Your task to perform on an android device: turn notification dots on Image 0: 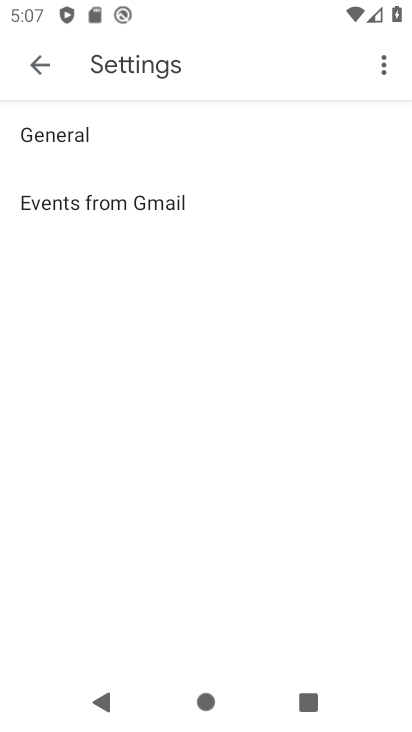
Step 0: press back button
Your task to perform on an android device: turn notification dots on Image 1: 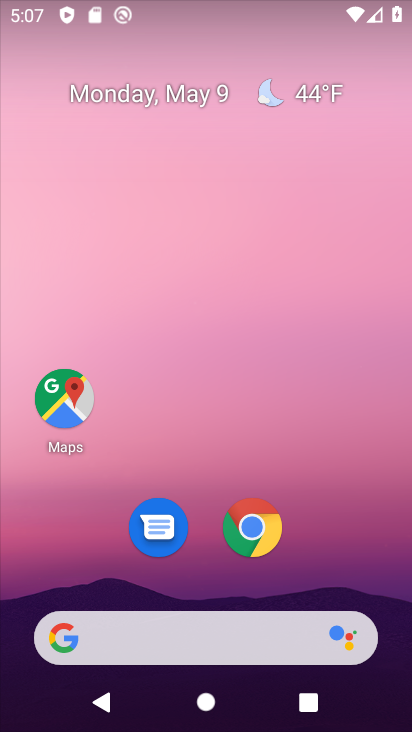
Step 1: drag from (358, 543) to (284, 46)
Your task to perform on an android device: turn notification dots on Image 2: 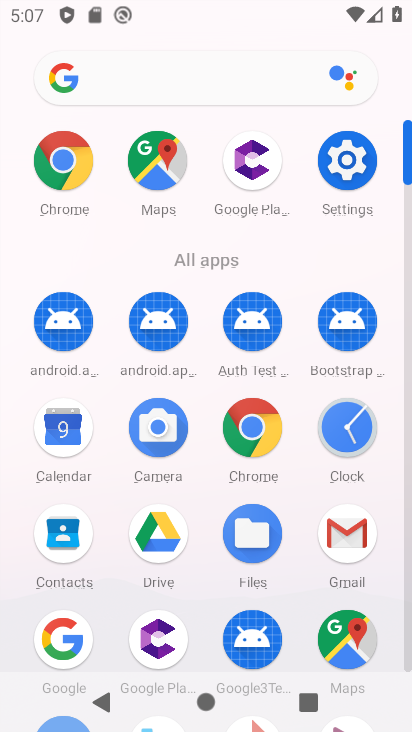
Step 2: click (346, 155)
Your task to perform on an android device: turn notification dots on Image 3: 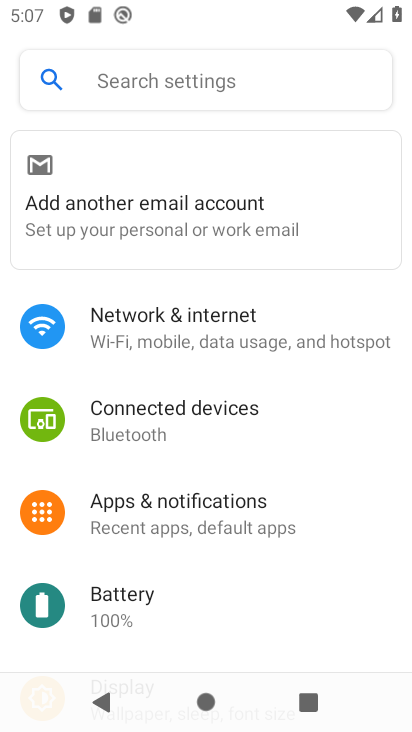
Step 3: drag from (306, 540) to (286, 150)
Your task to perform on an android device: turn notification dots on Image 4: 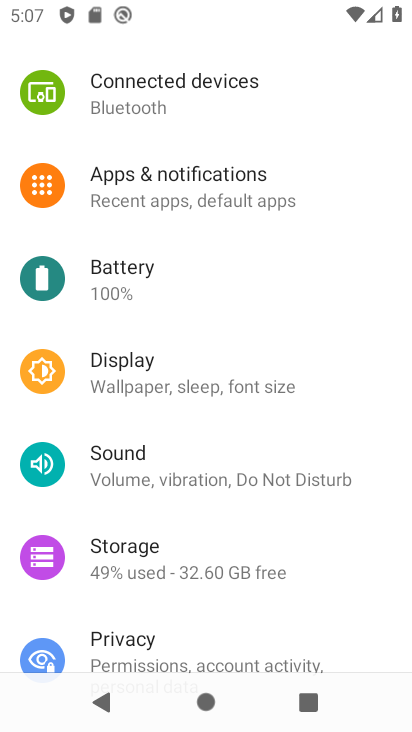
Step 4: drag from (201, 546) to (201, 195)
Your task to perform on an android device: turn notification dots on Image 5: 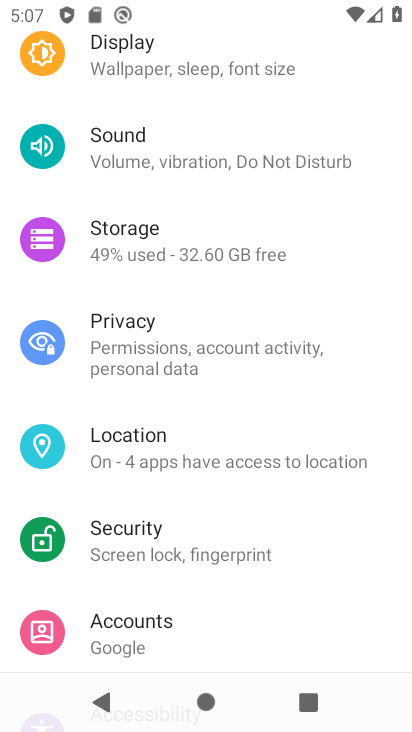
Step 5: drag from (260, 515) to (279, 160)
Your task to perform on an android device: turn notification dots on Image 6: 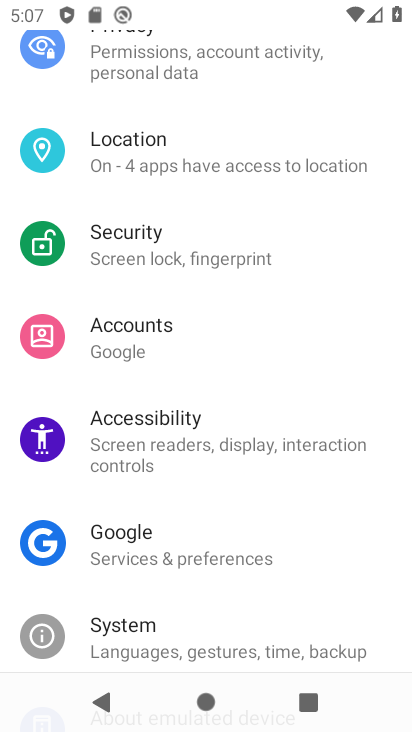
Step 6: drag from (293, 494) to (293, 153)
Your task to perform on an android device: turn notification dots on Image 7: 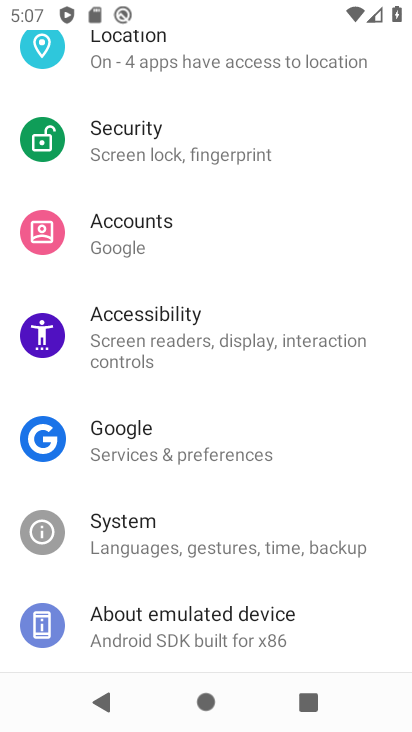
Step 7: drag from (238, 126) to (215, 491)
Your task to perform on an android device: turn notification dots on Image 8: 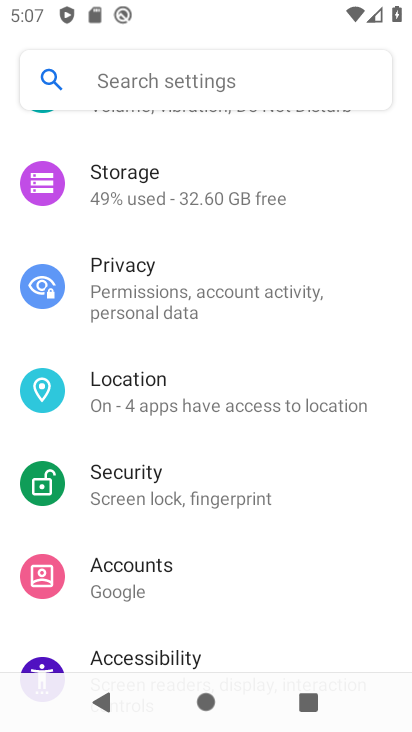
Step 8: drag from (235, 177) to (236, 503)
Your task to perform on an android device: turn notification dots on Image 9: 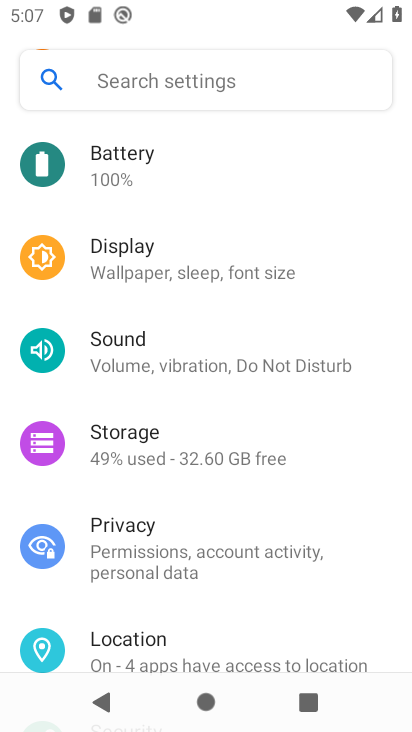
Step 9: drag from (254, 211) to (254, 486)
Your task to perform on an android device: turn notification dots on Image 10: 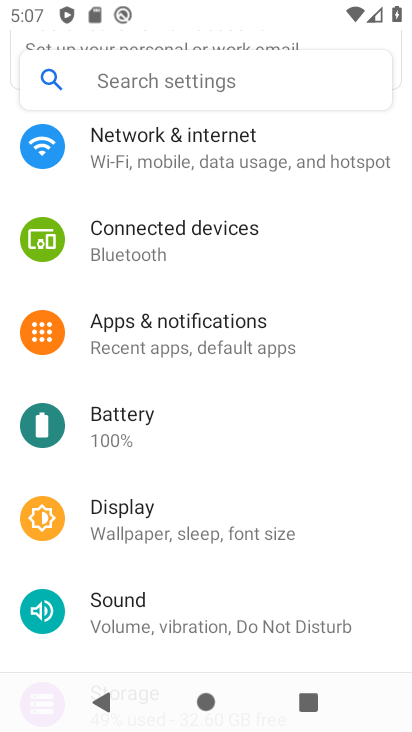
Step 10: click (178, 322)
Your task to perform on an android device: turn notification dots on Image 11: 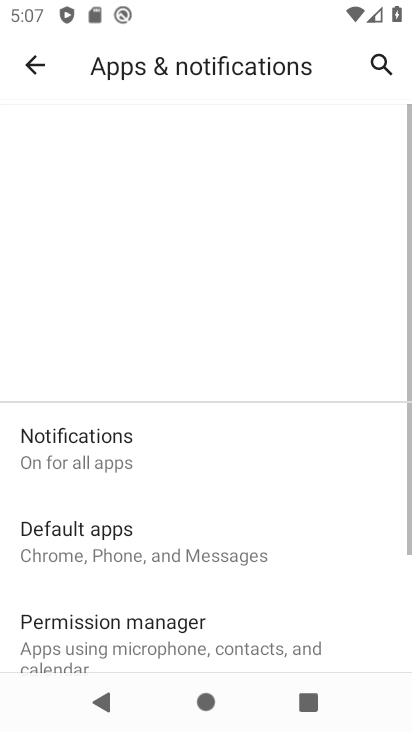
Step 11: drag from (234, 550) to (265, 170)
Your task to perform on an android device: turn notification dots on Image 12: 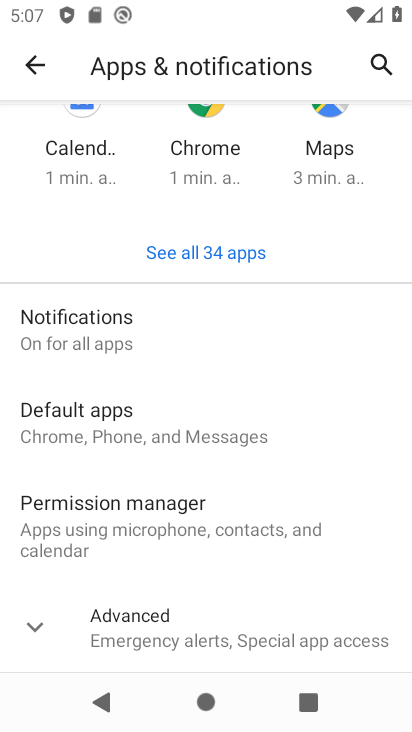
Step 12: click (143, 590)
Your task to perform on an android device: turn notification dots on Image 13: 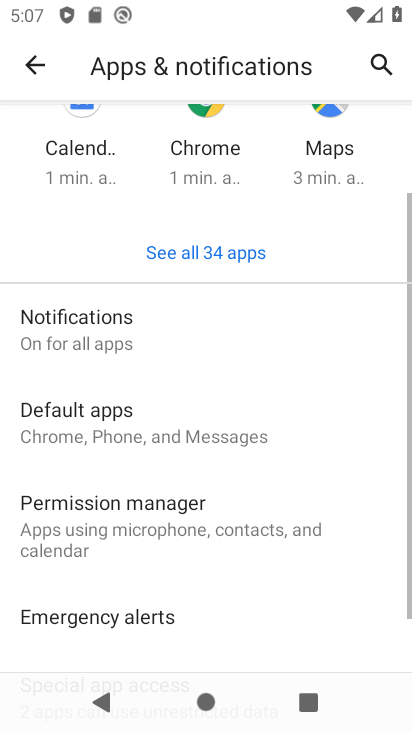
Step 13: drag from (302, 579) to (333, 181)
Your task to perform on an android device: turn notification dots on Image 14: 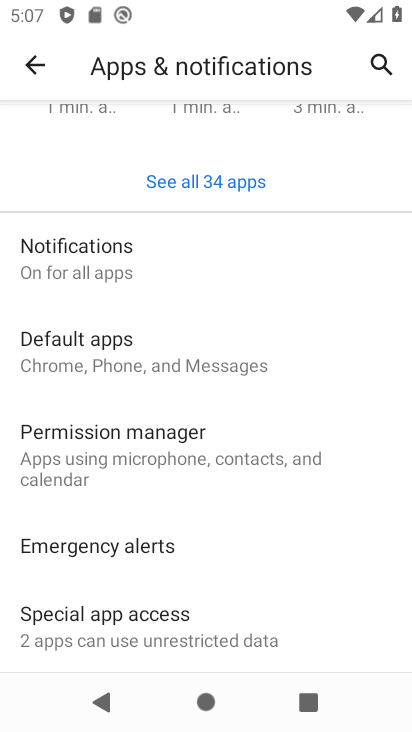
Step 14: click (146, 258)
Your task to perform on an android device: turn notification dots on Image 15: 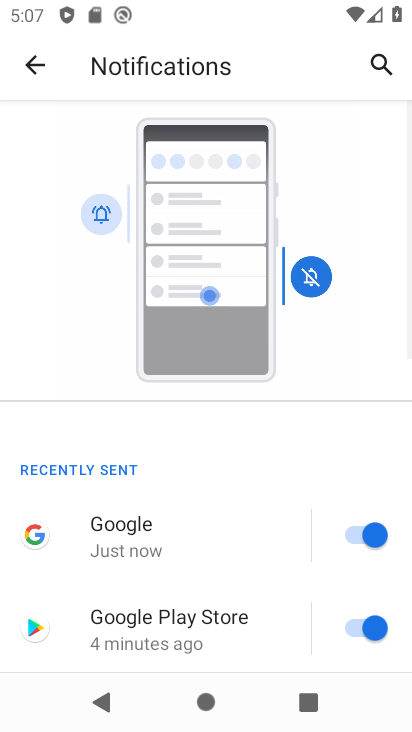
Step 15: drag from (173, 562) to (250, 108)
Your task to perform on an android device: turn notification dots on Image 16: 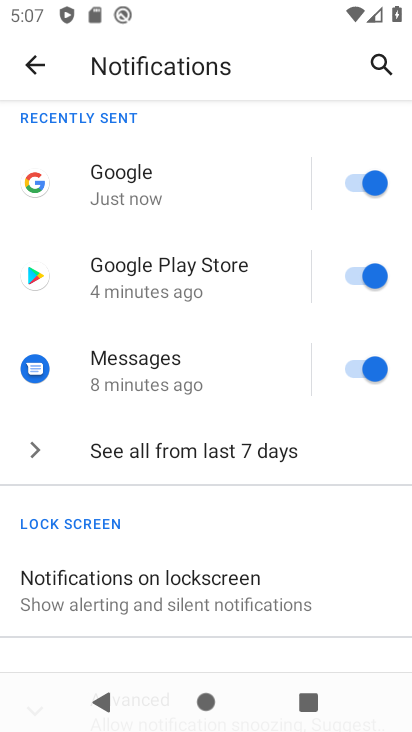
Step 16: click (152, 575)
Your task to perform on an android device: turn notification dots on Image 17: 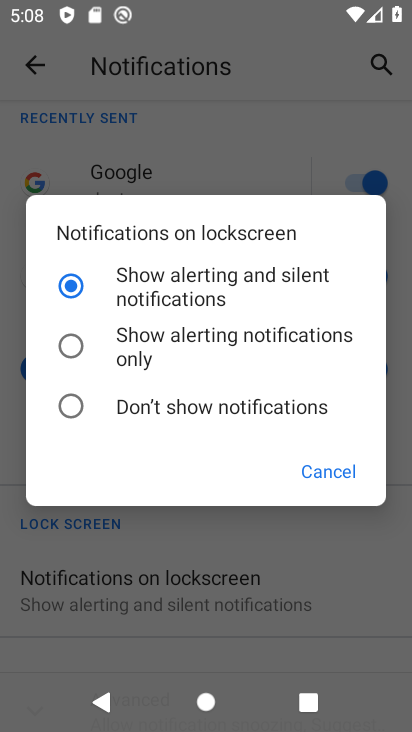
Step 17: click (327, 476)
Your task to perform on an android device: turn notification dots on Image 18: 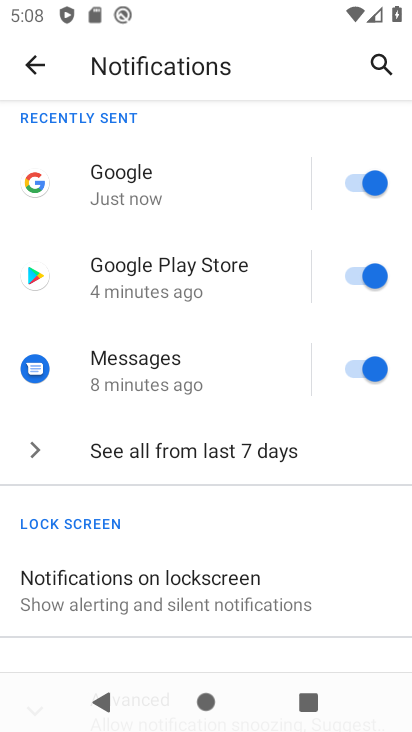
Step 18: drag from (288, 577) to (259, 177)
Your task to perform on an android device: turn notification dots on Image 19: 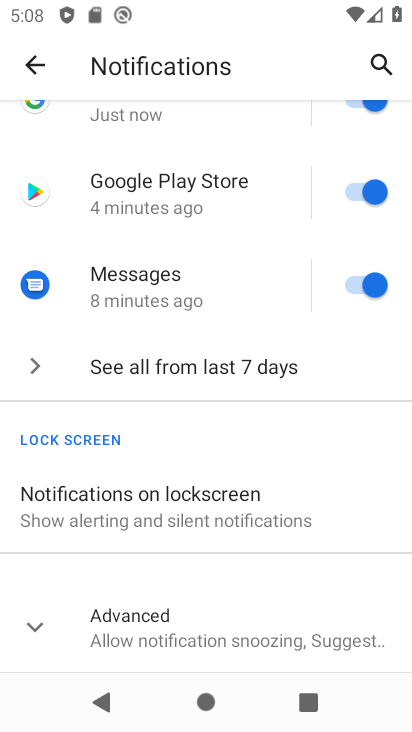
Step 19: click (150, 632)
Your task to perform on an android device: turn notification dots on Image 20: 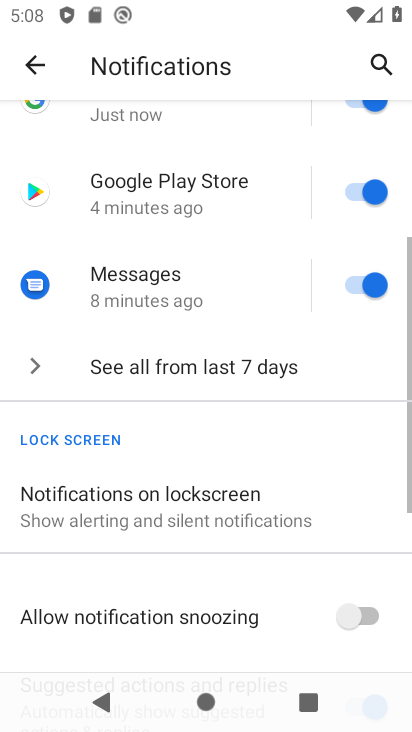
Step 20: task complete